Your task to perform on an android device: Go to Android settings Image 0: 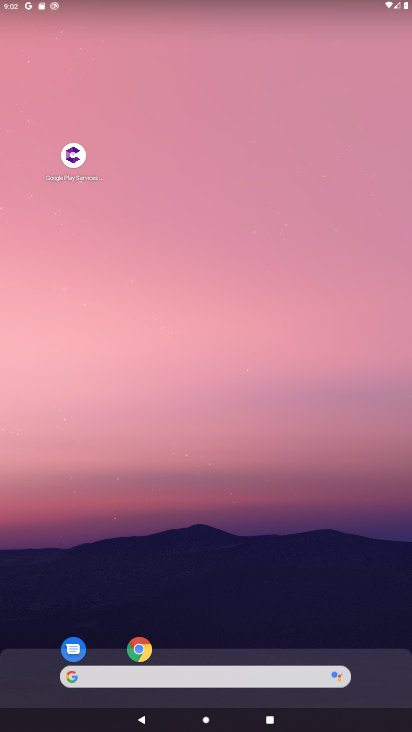
Step 0: drag from (228, 676) to (326, 289)
Your task to perform on an android device: Go to Android settings Image 1: 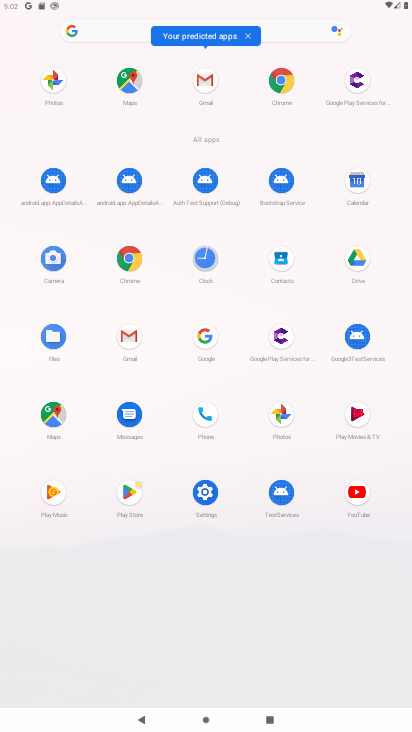
Step 1: click (208, 490)
Your task to perform on an android device: Go to Android settings Image 2: 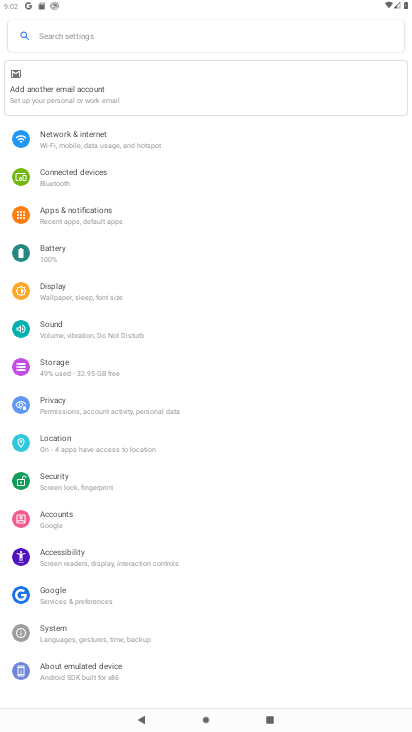
Step 2: task complete